Your task to perform on an android device: Clear the cart on target.com. Search for "bose quietcomfort 35" on target.com, select the first entry, add it to the cart, then select checkout. Image 0: 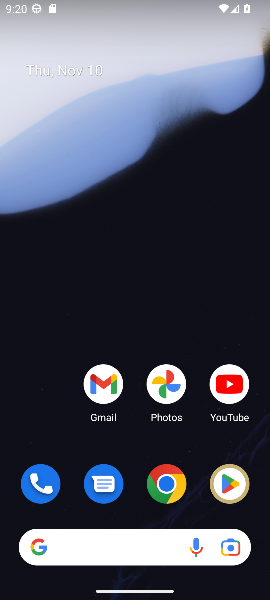
Step 0: click (170, 487)
Your task to perform on an android device: Clear the cart on target.com. Search for "bose quietcomfort 35" on target.com, select the first entry, add it to the cart, then select checkout. Image 1: 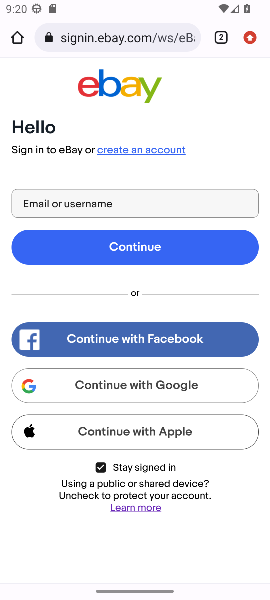
Step 1: click (117, 41)
Your task to perform on an android device: Clear the cart on target.com. Search for "bose quietcomfort 35" on target.com, select the first entry, add it to the cart, then select checkout. Image 2: 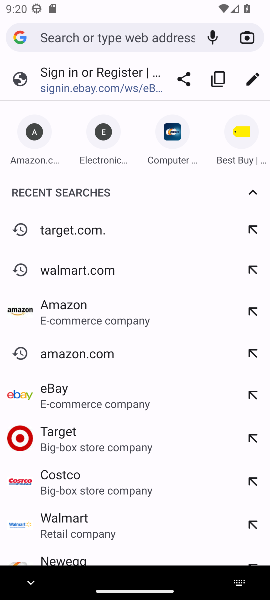
Step 2: type "target.com"
Your task to perform on an android device: Clear the cart on target.com. Search for "bose quietcomfort 35" on target.com, select the first entry, add it to the cart, then select checkout. Image 3: 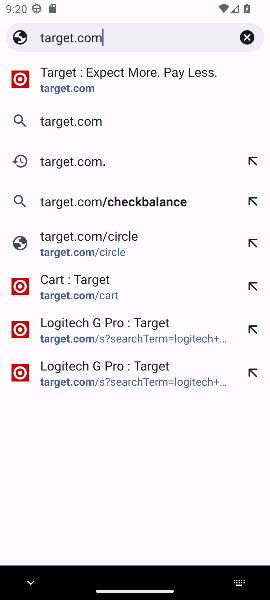
Step 3: click (71, 86)
Your task to perform on an android device: Clear the cart on target.com. Search for "bose quietcomfort 35" on target.com, select the first entry, add it to the cart, then select checkout. Image 4: 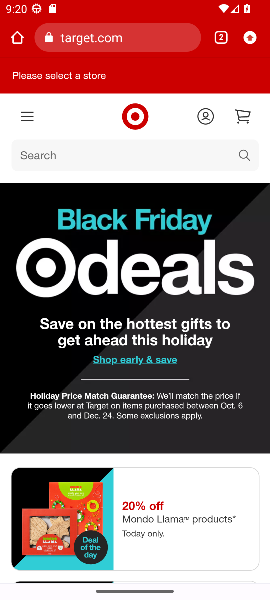
Step 4: click (242, 118)
Your task to perform on an android device: Clear the cart on target.com. Search for "bose quietcomfort 35" on target.com, select the first entry, add it to the cart, then select checkout. Image 5: 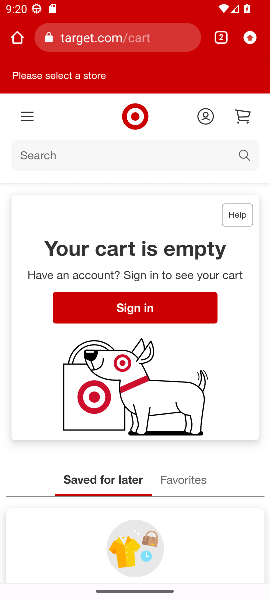
Step 5: click (234, 154)
Your task to perform on an android device: Clear the cart on target.com. Search for "bose quietcomfort 35" on target.com, select the first entry, add it to the cart, then select checkout. Image 6: 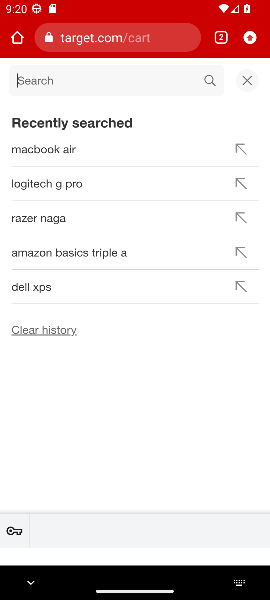
Step 6: type "bose quietcomfort 35"
Your task to perform on an android device: Clear the cart on target.com. Search for "bose quietcomfort 35" on target.com, select the first entry, add it to the cart, then select checkout. Image 7: 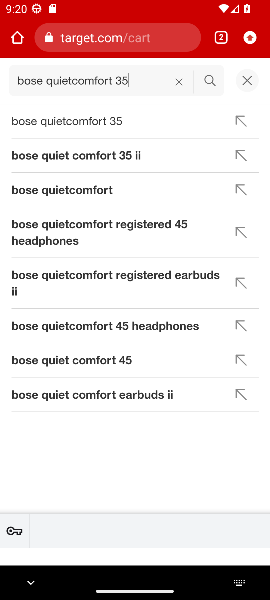
Step 7: click (60, 124)
Your task to perform on an android device: Clear the cart on target.com. Search for "bose quietcomfort 35" on target.com, select the first entry, add it to the cart, then select checkout. Image 8: 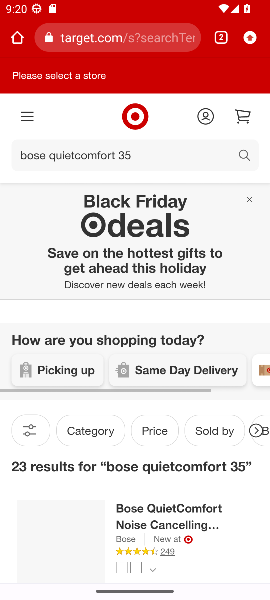
Step 8: drag from (89, 445) to (81, 272)
Your task to perform on an android device: Clear the cart on target.com. Search for "bose quietcomfort 35" on target.com, select the first entry, add it to the cart, then select checkout. Image 9: 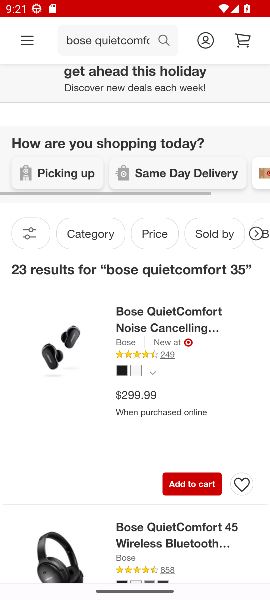
Step 9: click (81, 373)
Your task to perform on an android device: Clear the cart on target.com. Search for "bose quietcomfort 35" on target.com, select the first entry, add it to the cart, then select checkout. Image 10: 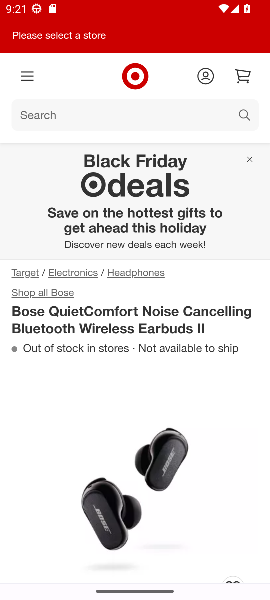
Step 10: task complete